Your task to perform on an android device: toggle data saver in the chrome app Image 0: 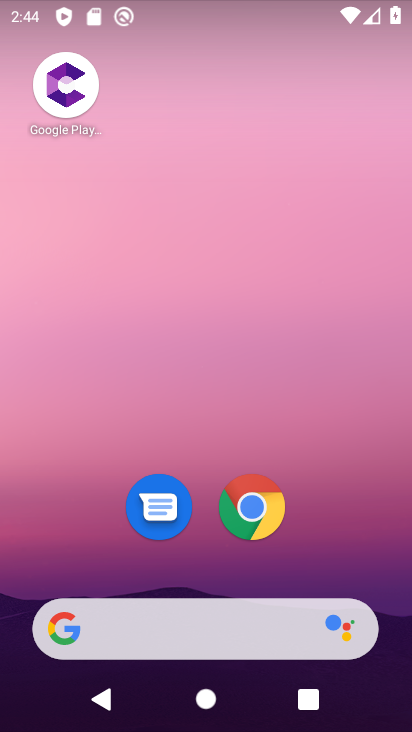
Step 0: click (232, 520)
Your task to perform on an android device: toggle data saver in the chrome app Image 1: 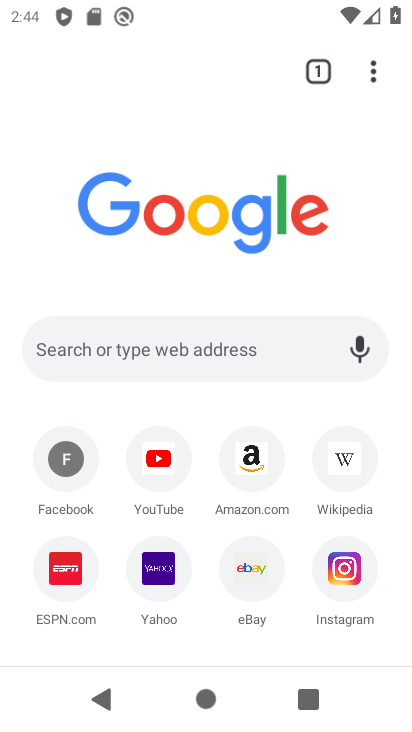
Step 1: click (382, 76)
Your task to perform on an android device: toggle data saver in the chrome app Image 2: 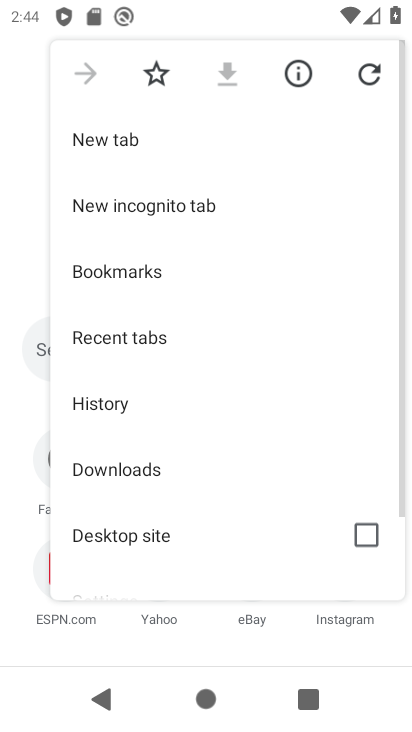
Step 2: drag from (237, 517) to (245, 156)
Your task to perform on an android device: toggle data saver in the chrome app Image 3: 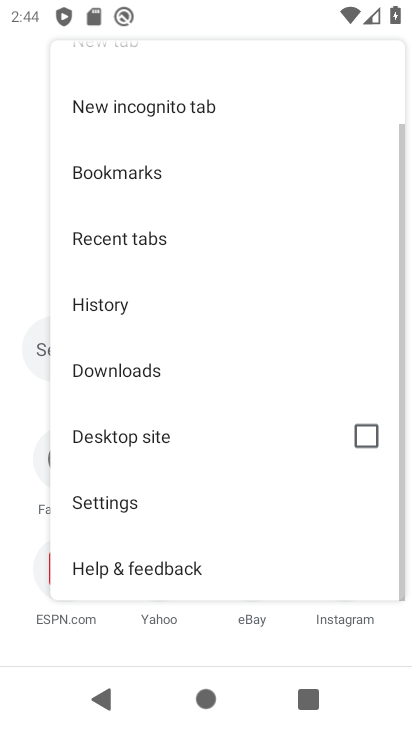
Step 3: click (116, 512)
Your task to perform on an android device: toggle data saver in the chrome app Image 4: 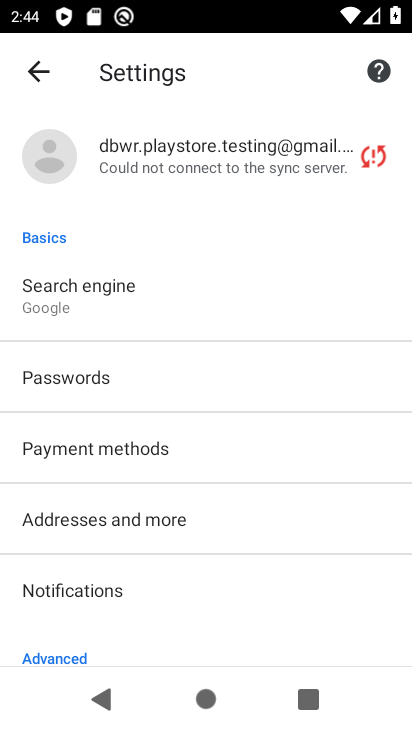
Step 4: drag from (191, 643) to (283, 247)
Your task to perform on an android device: toggle data saver in the chrome app Image 5: 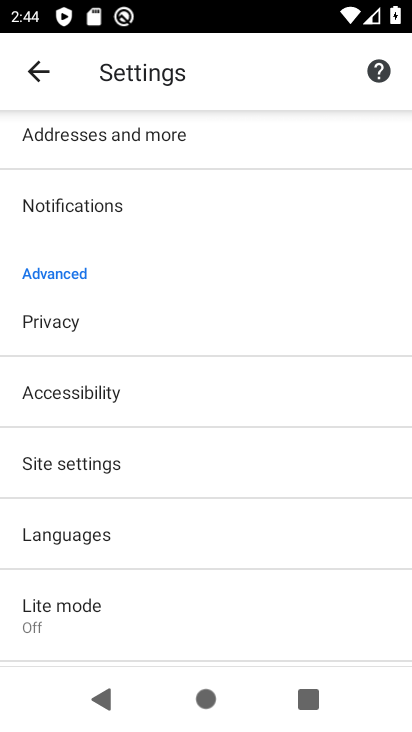
Step 5: click (108, 618)
Your task to perform on an android device: toggle data saver in the chrome app Image 6: 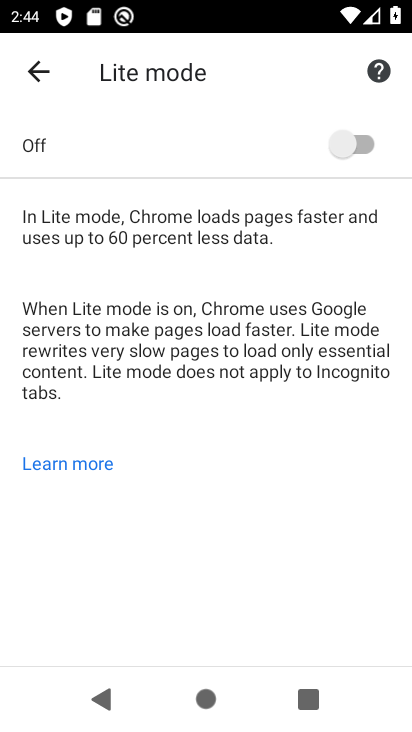
Step 6: click (338, 149)
Your task to perform on an android device: toggle data saver in the chrome app Image 7: 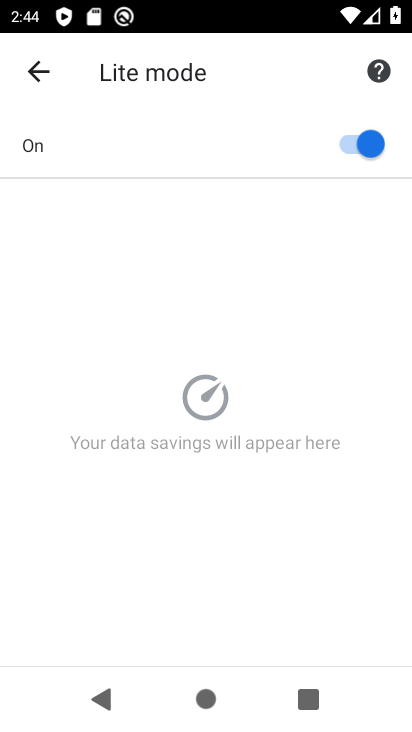
Step 7: task complete